Your task to perform on an android device: Open calendar and show me the second week of next month Image 0: 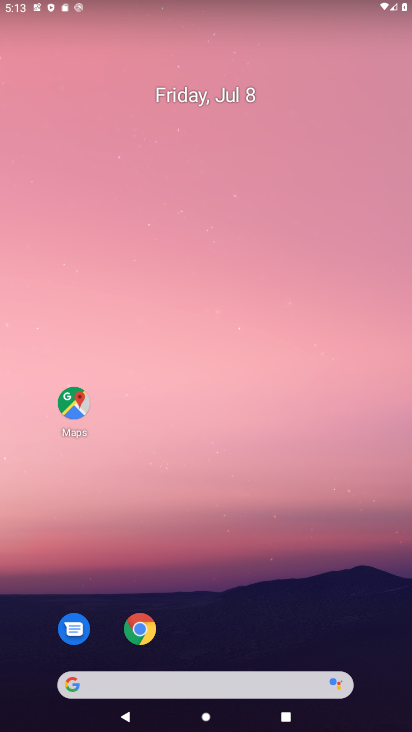
Step 0: press home button
Your task to perform on an android device: Open calendar and show me the second week of next month Image 1: 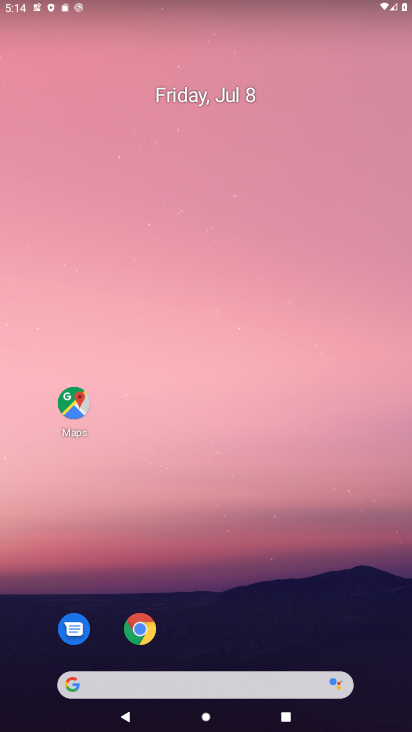
Step 1: drag from (269, 647) to (212, 196)
Your task to perform on an android device: Open calendar and show me the second week of next month Image 2: 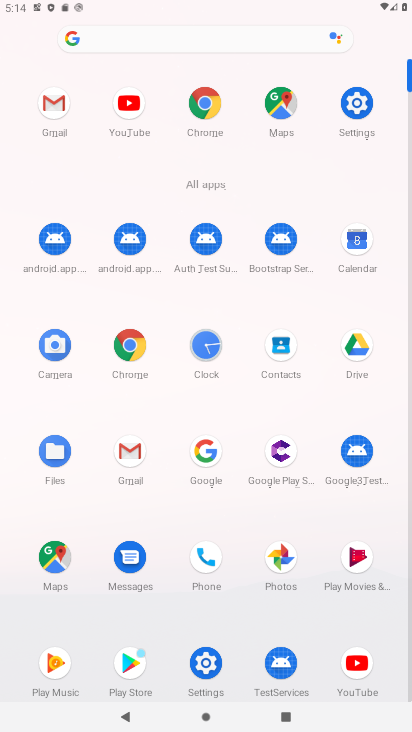
Step 2: click (354, 248)
Your task to perform on an android device: Open calendar and show me the second week of next month Image 3: 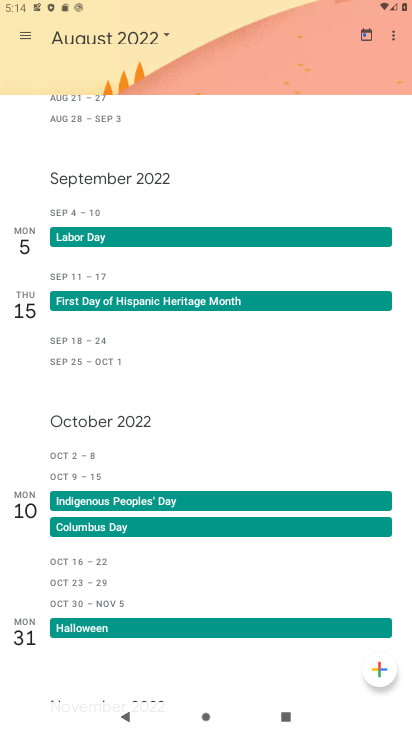
Step 3: click (165, 38)
Your task to perform on an android device: Open calendar and show me the second week of next month Image 4: 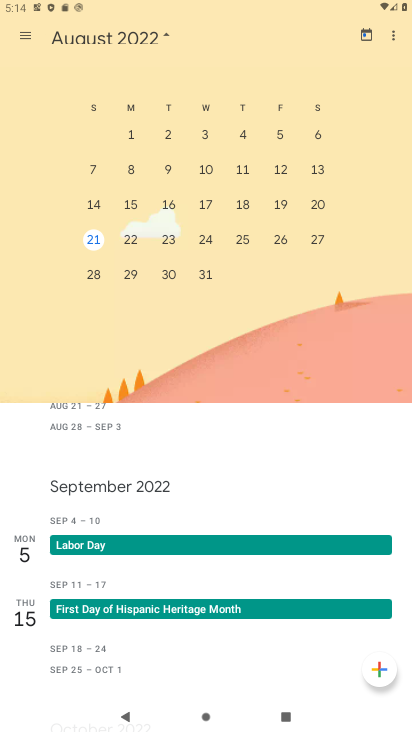
Step 4: click (132, 173)
Your task to perform on an android device: Open calendar and show me the second week of next month Image 5: 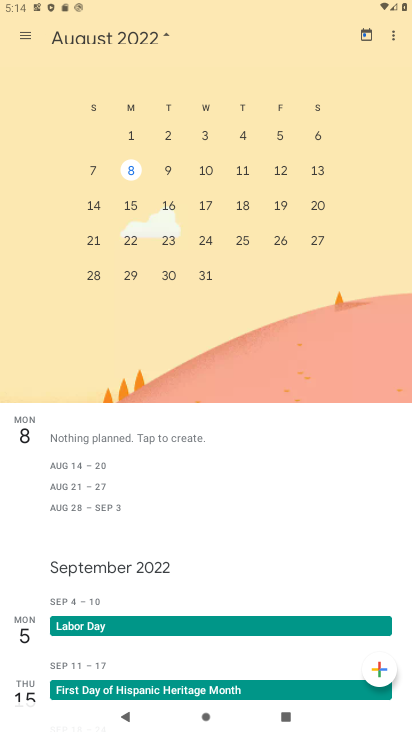
Step 5: click (166, 176)
Your task to perform on an android device: Open calendar and show me the second week of next month Image 6: 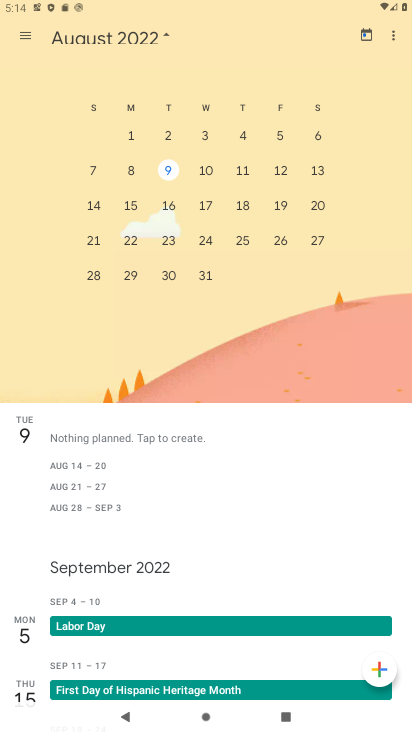
Step 6: click (218, 174)
Your task to perform on an android device: Open calendar and show me the second week of next month Image 7: 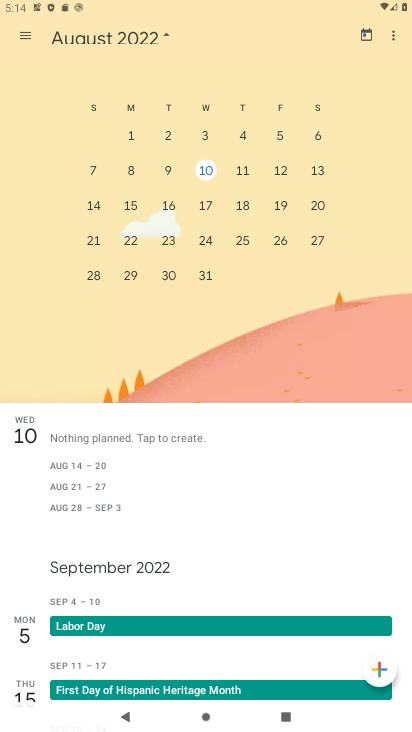
Step 7: click (249, 171)
Your task to perform on an android device: Open calendar and show me the second week of next month Image 8: 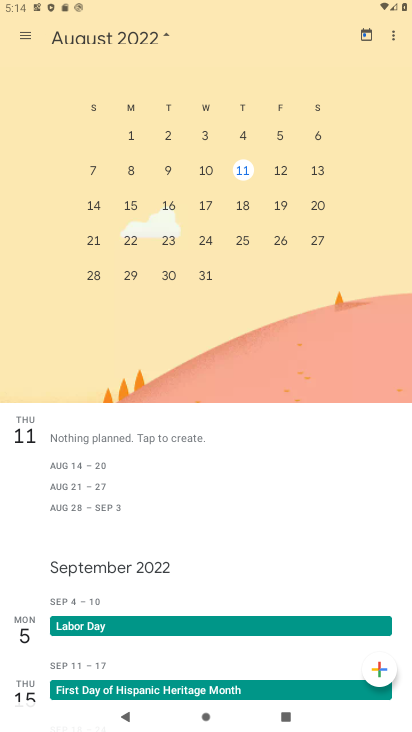
Step 8: click (280, 175)
Your task to perform on an android device: Open calendar and show me the second week of next month Image 9: 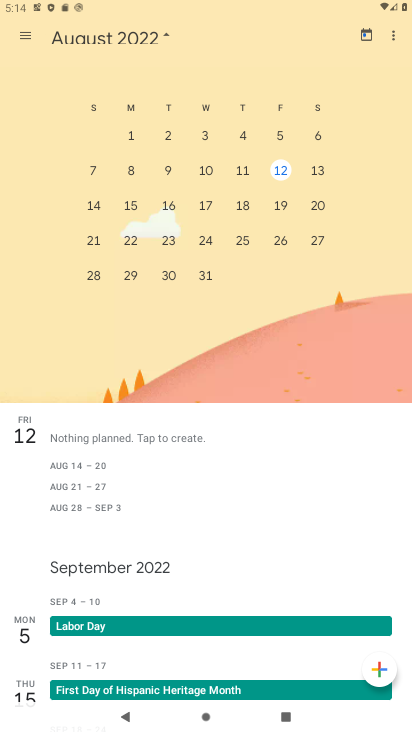
Step 9: click (315, 169)
Your task to perform on an android device: Open calendar and show me the second week of next month Image 10: 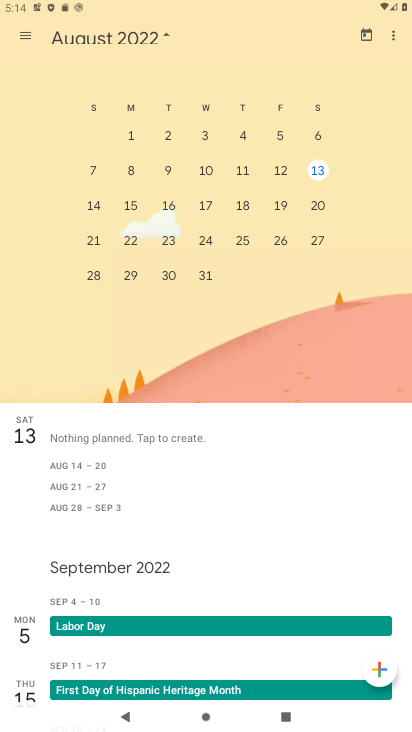
Step 10: click (103, 211)
Your task to perform on an android device: Open calendar and show me the second week of next month Image 11: 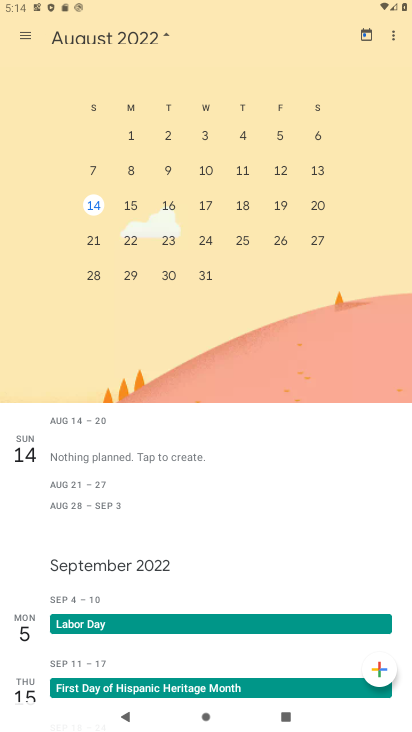
Step 11: task complete